Your task to perform on an android device: check the backup settings in the google photos Image 0: 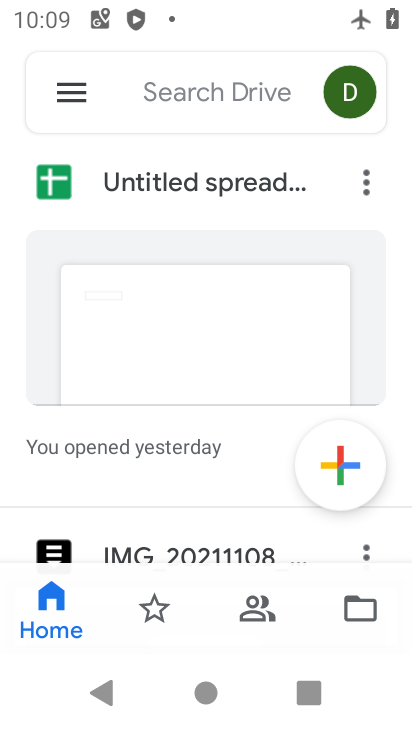
Step 0: press home button
Your task to perform on an android device: check the backup settings in the google photos Image 1: 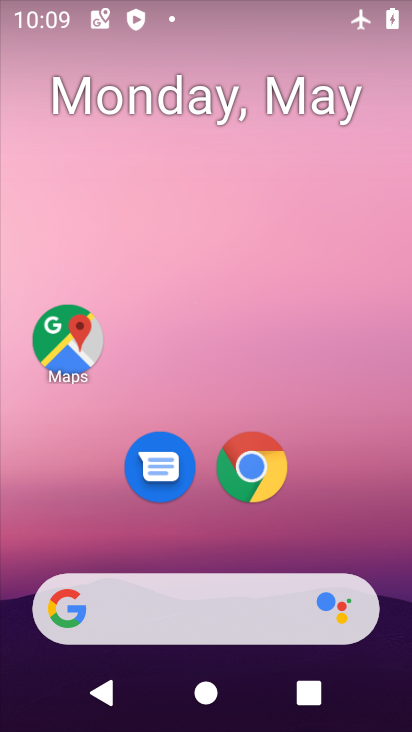
Step 1: drag from (393, 615) to (182, 70)
Your task to perform on an android device: check the backup settings in the google photos Image 2: 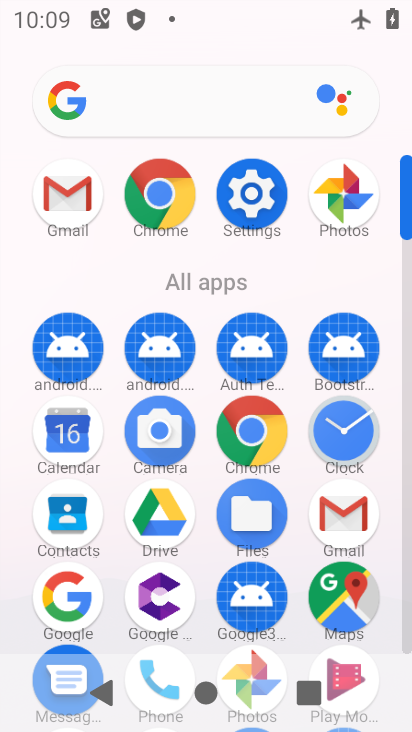
Step 2: click (409, 640)
Your task to perform on an android device: check the backup settings in the google photos Image 3: 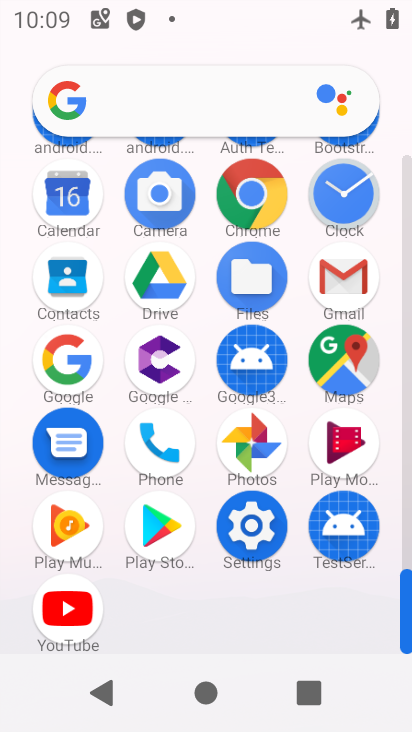
Step 3: click (248, 434)
Your task to perform on an android device: check the backup settings in the google photos Image 4: 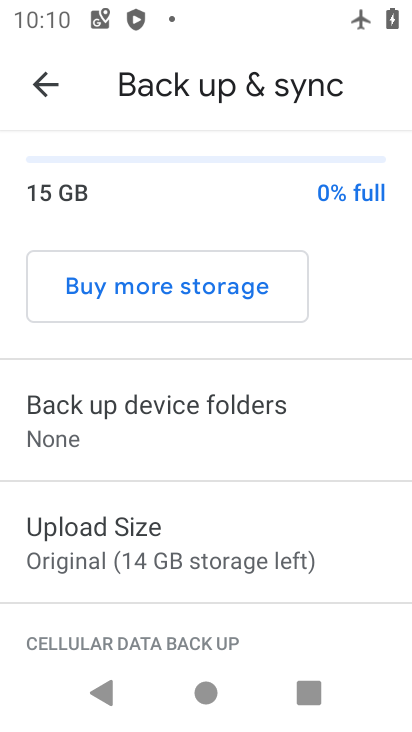
Step 4: task complete